Your task to perform on an android device: Show me recent news Image 0: 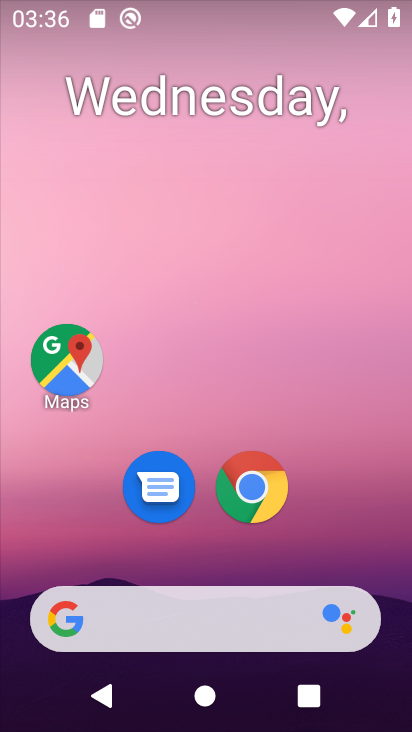
Step 0: drag from (329, 530) to (309, 128)
Your task to perform on an android device: Show me recent news Image 1: 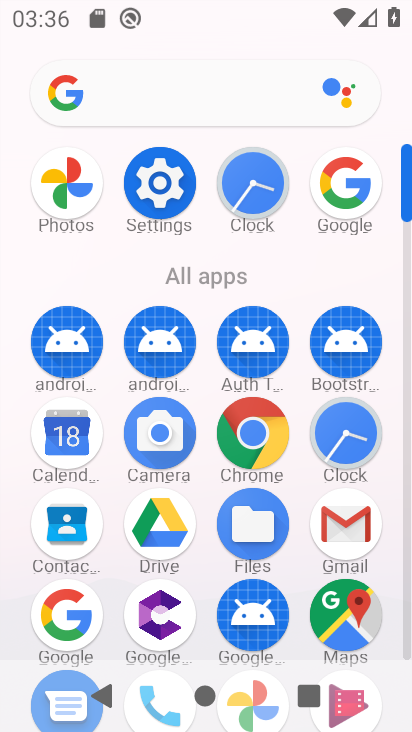
Step 1: click (338, 178)
Your task to perform on an android device: Show me recent news Image 2: 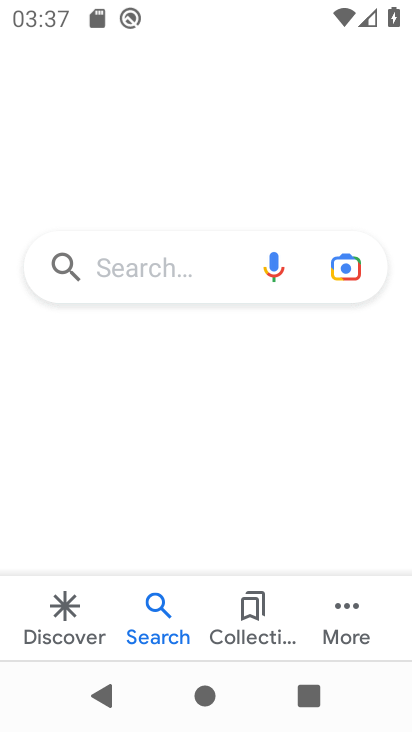
Step 2: click (120, 266)
Your task to perform on an android device: Show me recent news Image 3: 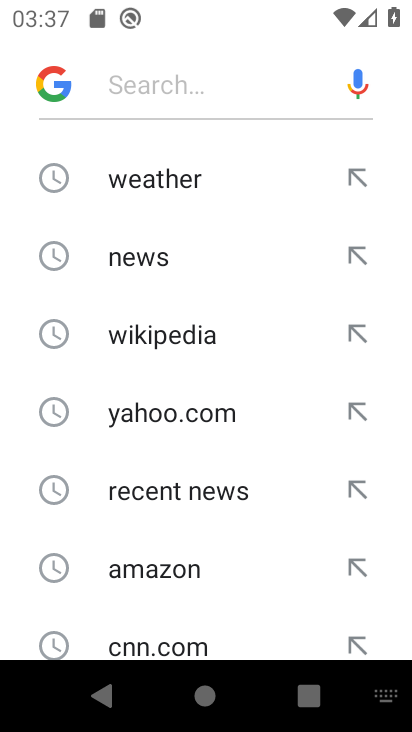
Step 3: type "recent news"
Your task to perform on an android device: Show me recent news Image 4: 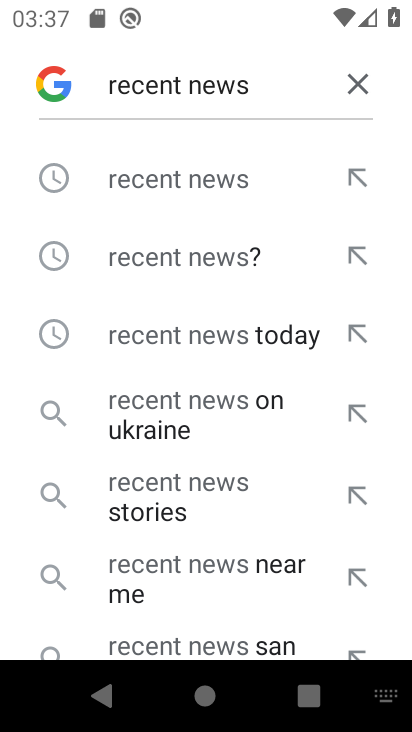
Step 4: click (218, 175)
Your task to perform on an android device: Show me recent news Image 5: 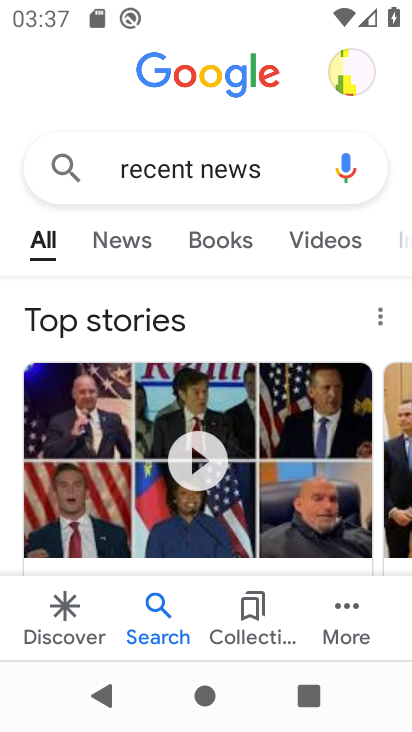
Step 5: task complete